Your task to perform on an android device: Search for pizza restaurants on Maps Image 0: 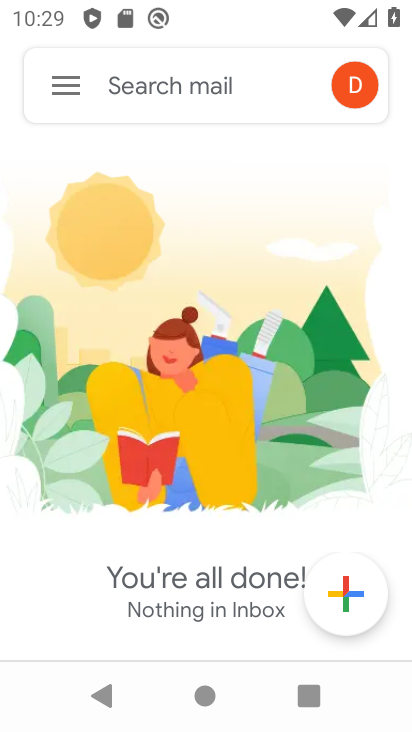
Step 0: press home button
Your task to perform on an android device: Search for pizza restaurants on Maps Image 1: 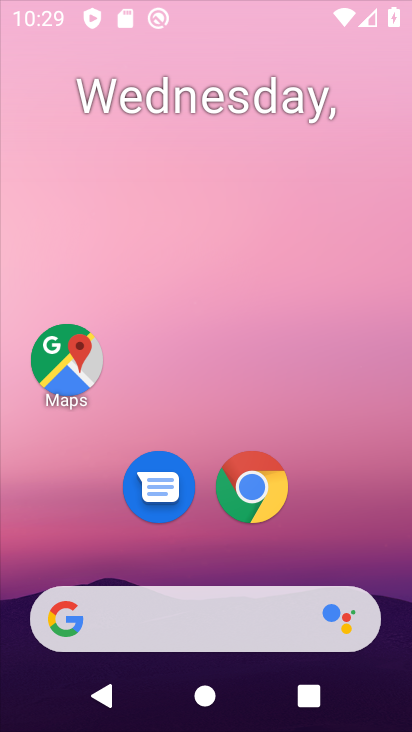
Step 1: drag from (273, 665) to (278, 30)
Your task to perform on an android device: Search for pizza restaurants on Maps Image 2: 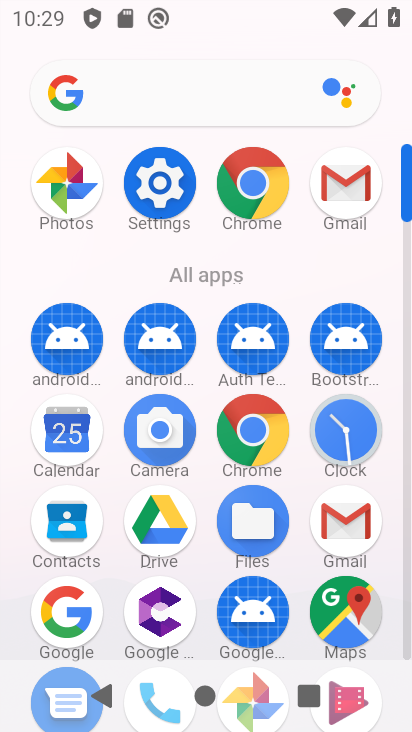
Step 2: click (352, 607)
Your task to perform on an android device: Search for pizza restaurants on Maps Image 3: 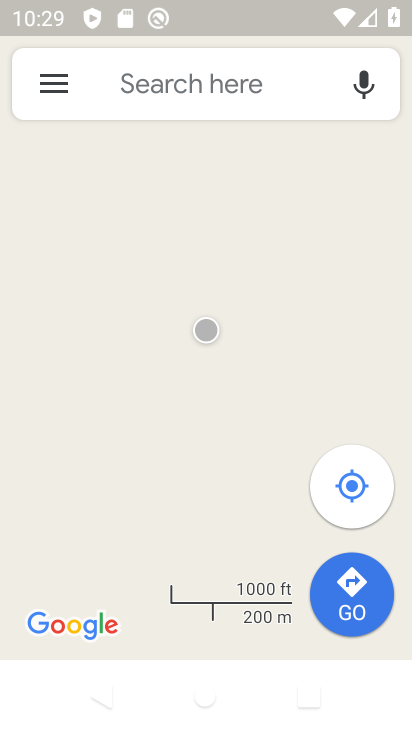
Step 3: click (217, 79)
Your task to perform on an android device: Search for pizza restaurants on Maps Image 4: 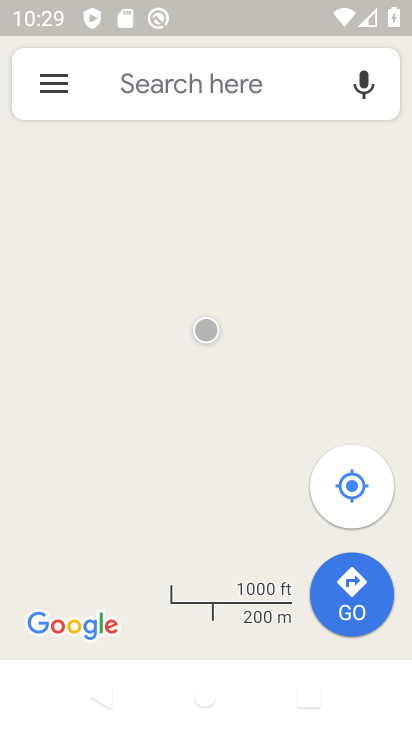
Step 4: click (222, 84)
Your task to perform on an android device: Search for pizza restaurants on Maps Image 5: 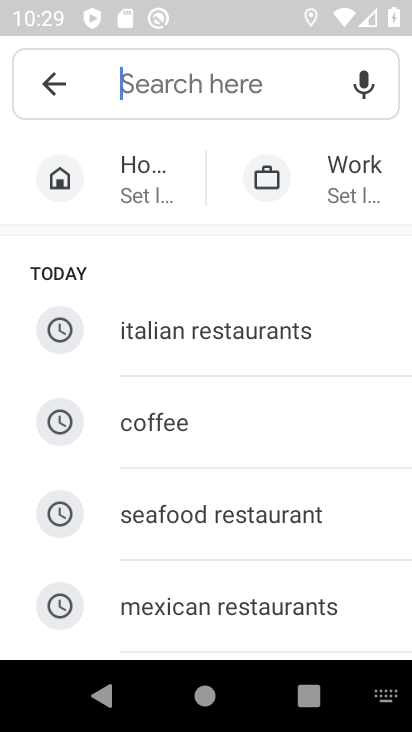
Step 5: type "pizza restaurant"
Your task to perform on an android device: Search for pizza restaurants on Maps Image 6: 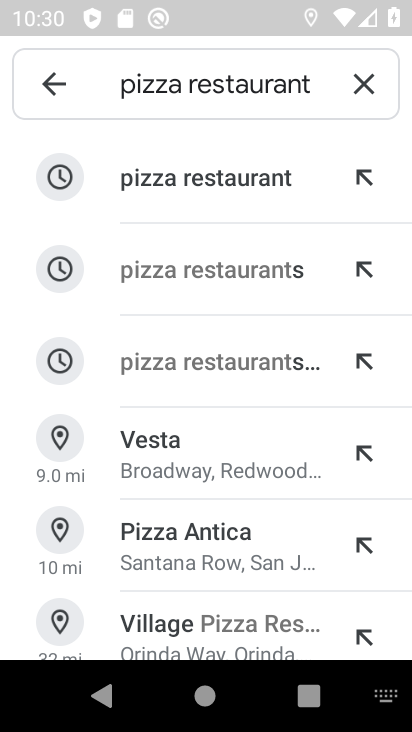
Step 6: click (295, 192)
Your task to perform on an android device: Search for pizza restaurants on Maps Image 7: 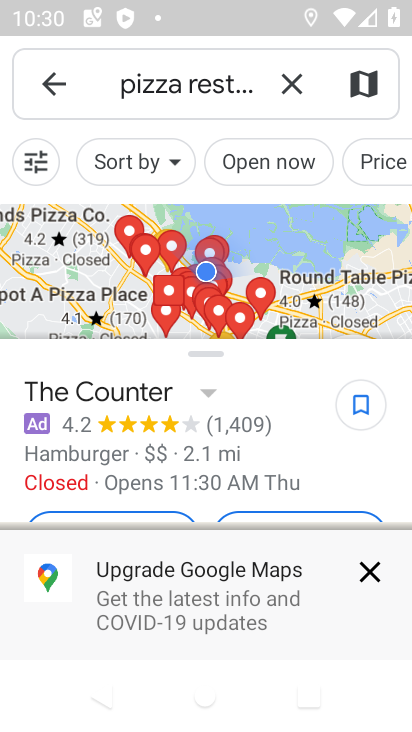
Step 7: task complete